Your task to perform on an android device: Clear all items from cart on ebay.com. Add logitech g pro to the cart on ebay.com Image 0: 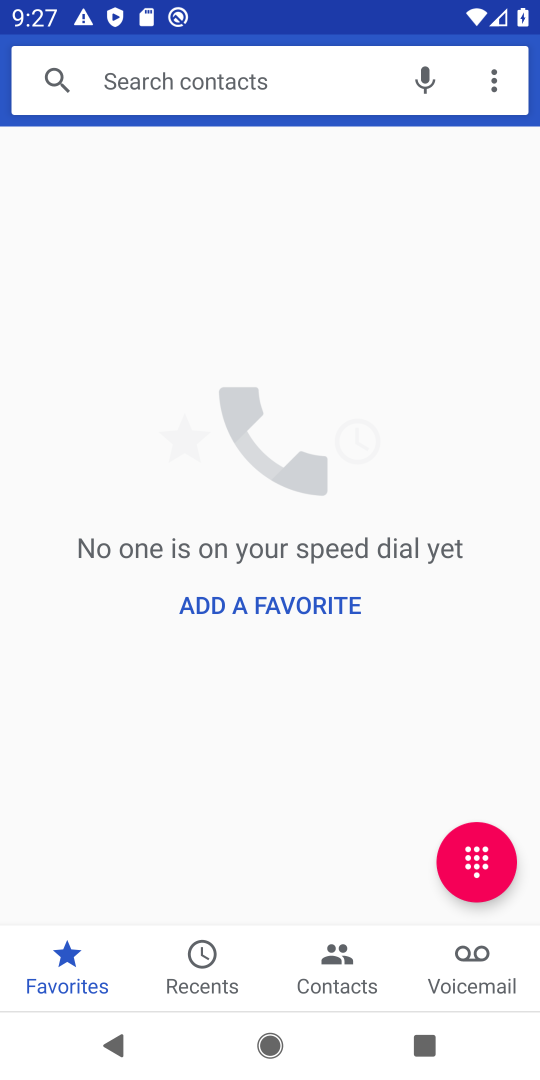
Step 0: press home button
Your task to perform on an android device: Clear all items from cart on ebay.com. Add logitech g pro to the cart on ebay.com Image 1: 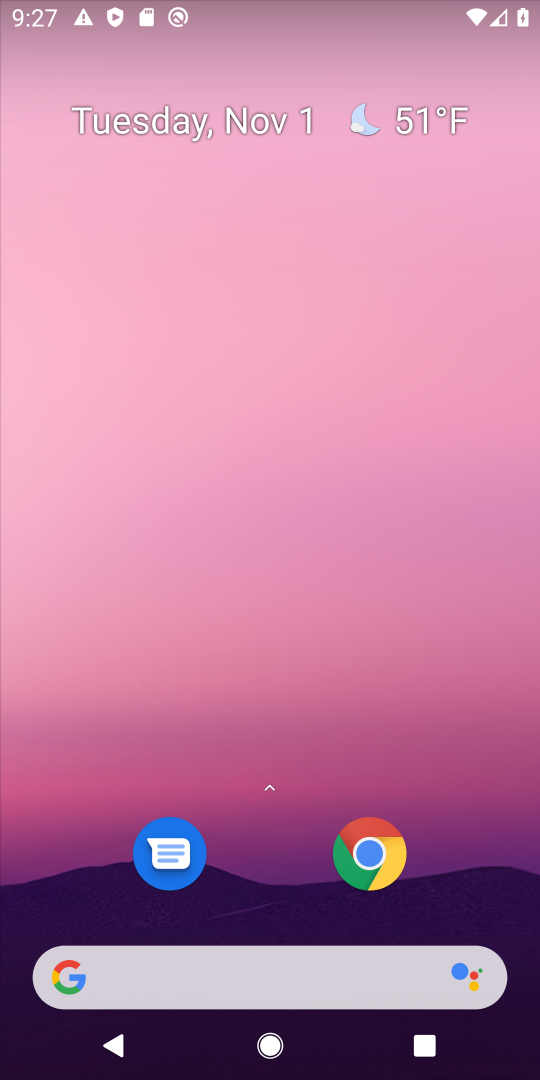
Step 1: click (124, 949)
Your task to perform on an android device: Clear all items from cart on ebay.com. Add logitech g pro to the cart on ebay.com Image 2: 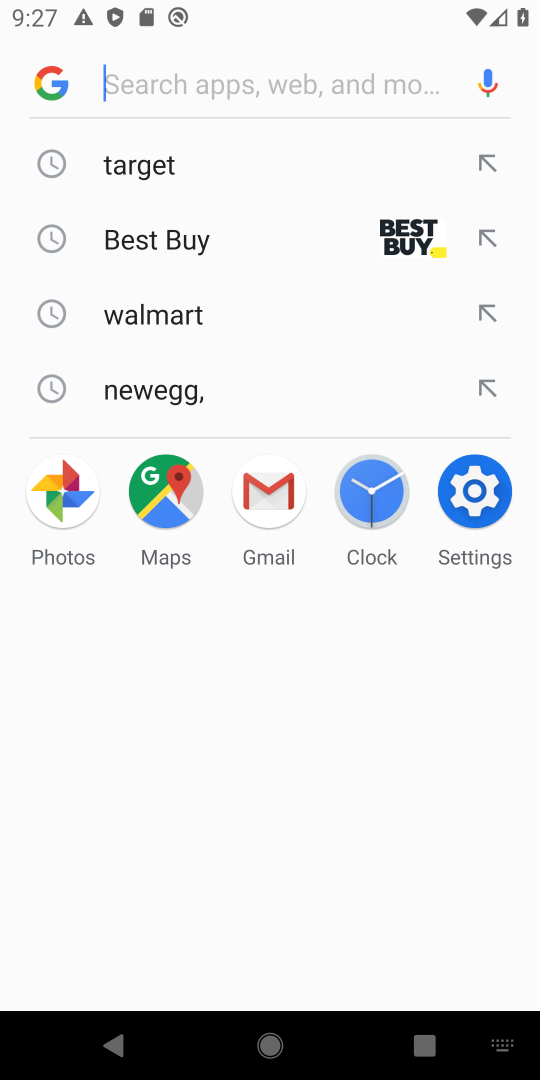
Step 2: type "ebay.com"
Your task to perform on an android device: Clear all items from cart on ebay.com. Add logitech g pro to the cart on ebay.com Image 3: 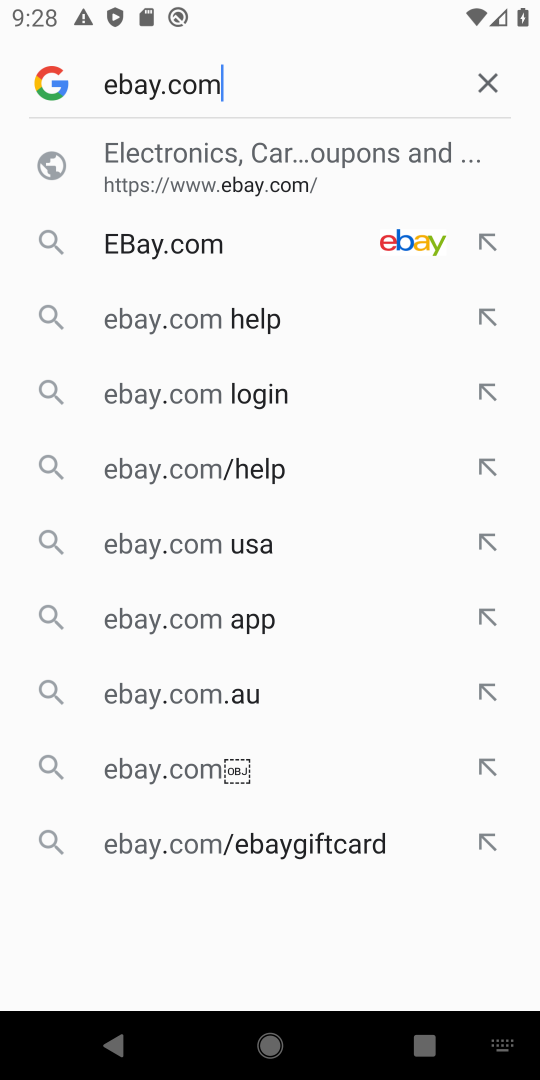
Step 3: click (201, 183)
Your task to perform on an android device: Clear all items from cart on ebay.com. Add logitech g pro to the cart on ebay.com Image 4: 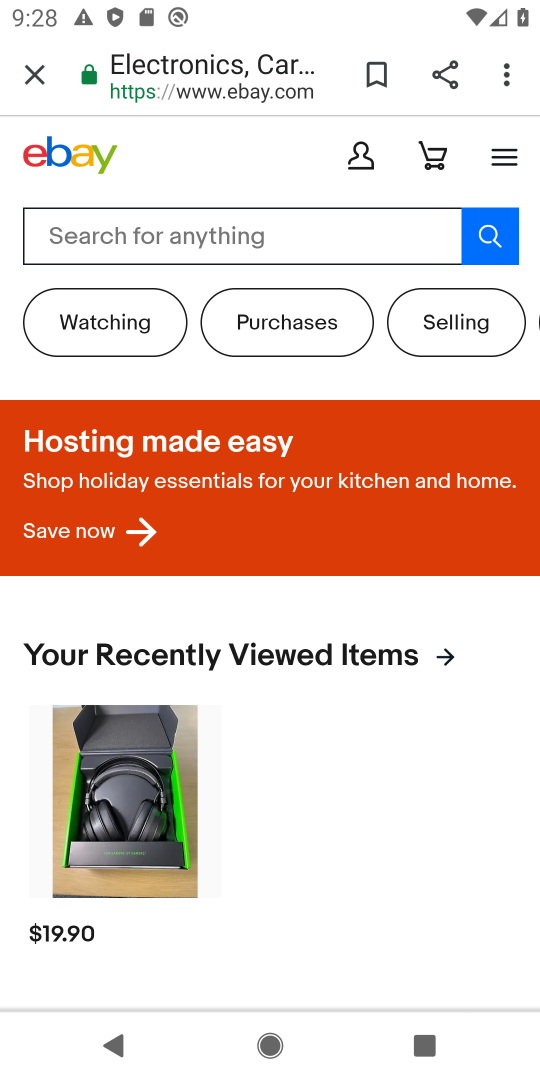
Step 4: click (134, 236)
Your task to perform on an android device: Clear all items from cart on ebay.com. Add logitech g pro to the cart on ebay.com Image 5: 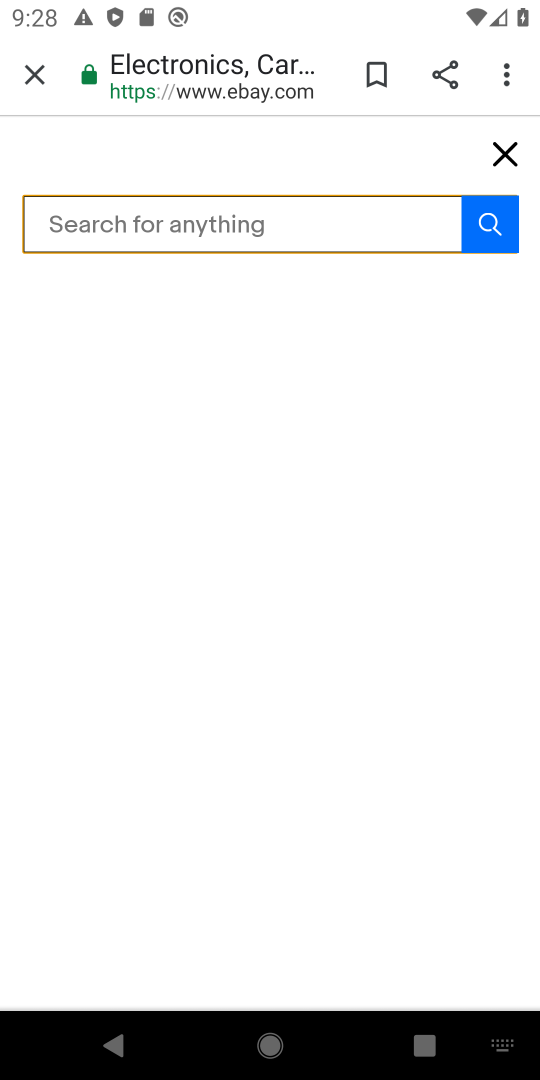
Step 5: type "logitech g pro"
Your task to perform on an android device: Clear all items from cart on ebay.com. Add logitech g pro to the cart on ebay.com Image 6: 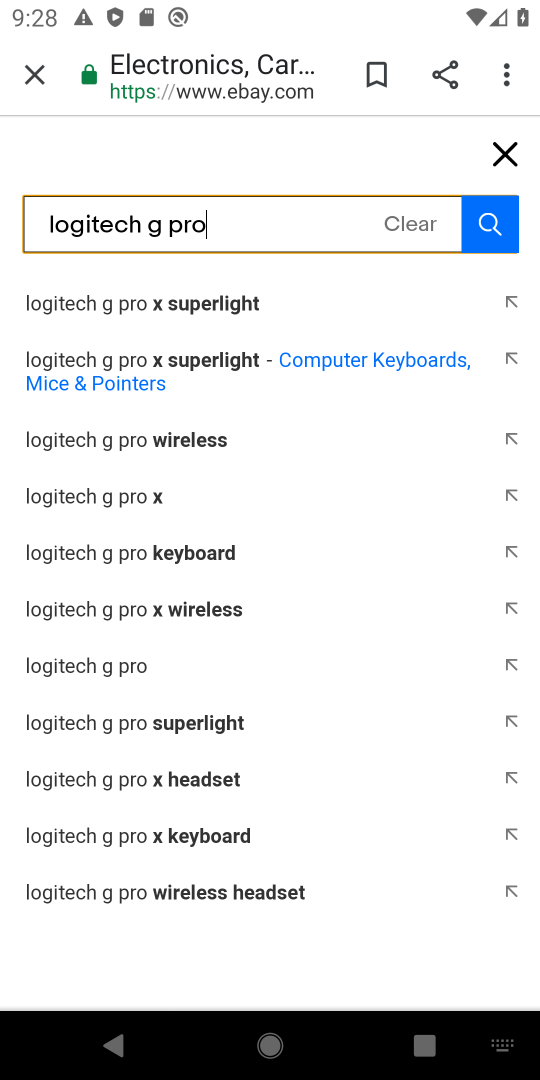
Step 6: click (202, 661)
Your task to perform on an android device: Clear all items from cart on ebay.com. Add logitech g pro to the cart on ebay.com Image 7: 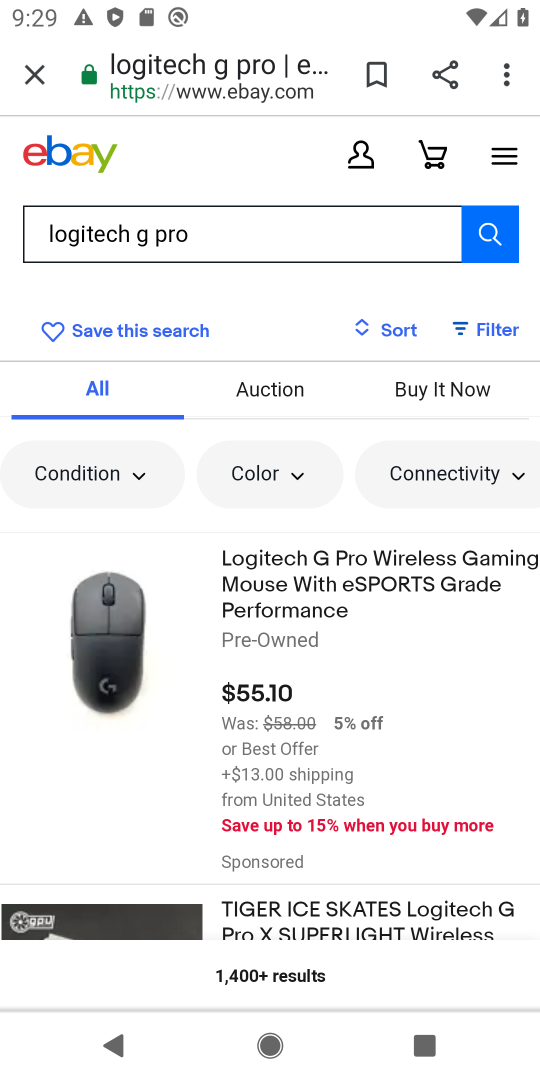
Step 7: click (344, 614)
Your task to perform on an android device: Clear all items from cart on ebay.com. Add logitech g pro to the cart on ebay.com Image 8: 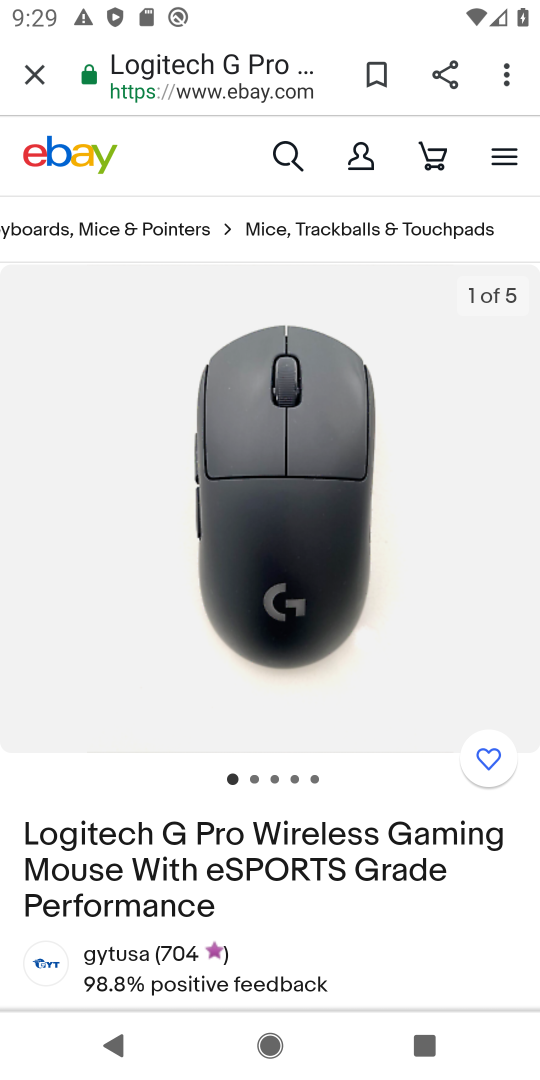
Step 8: drag from (329, 779) to (323, 290)
Your task to perform on an android device: Clear all items from cart on ebay.com. Add logitech g pro to the cart on ebay.com Image 9: 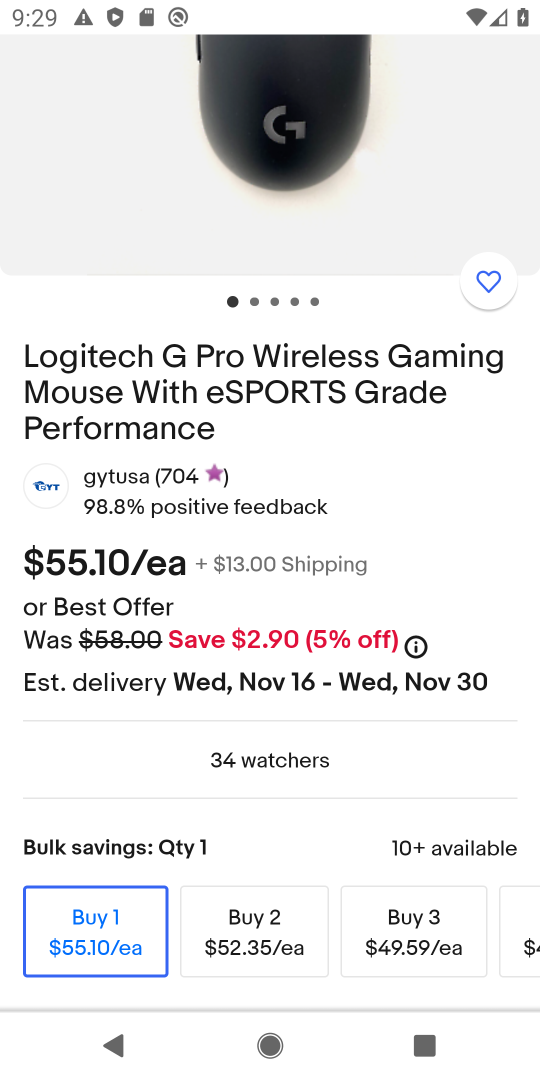
Step 9: drag from (269, 818) to (266, 299)
Your task to perform on an android device: Clear all items from cart on ebay.com. Add logitech g pro to the cart on ebay.com Image 10: 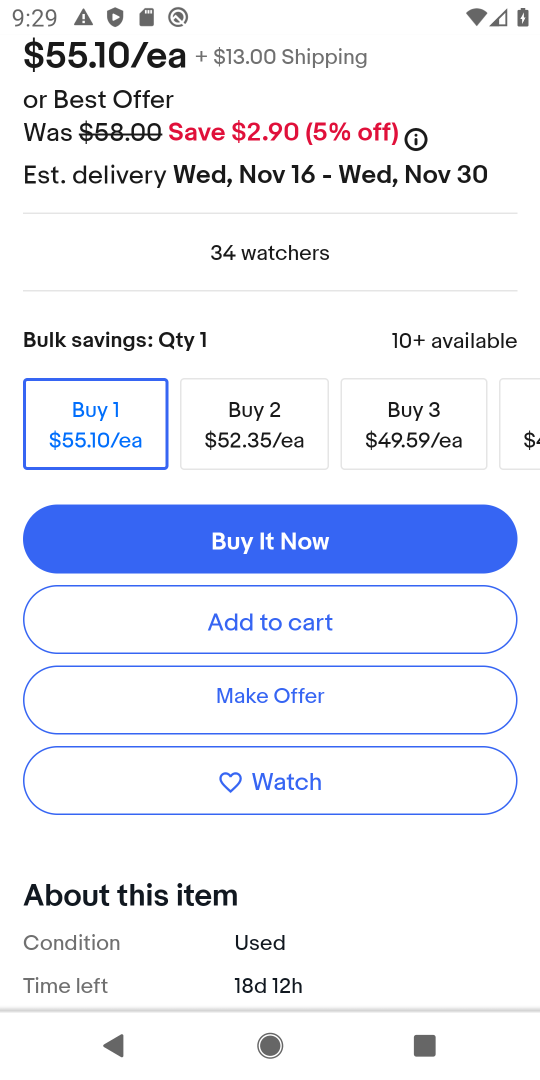
Step 10: click (302, 615)
Your task to perform on an android device: Clear all items from cart on ebay.com. Add logitech g pro to the cart on ebay.com Image 11: 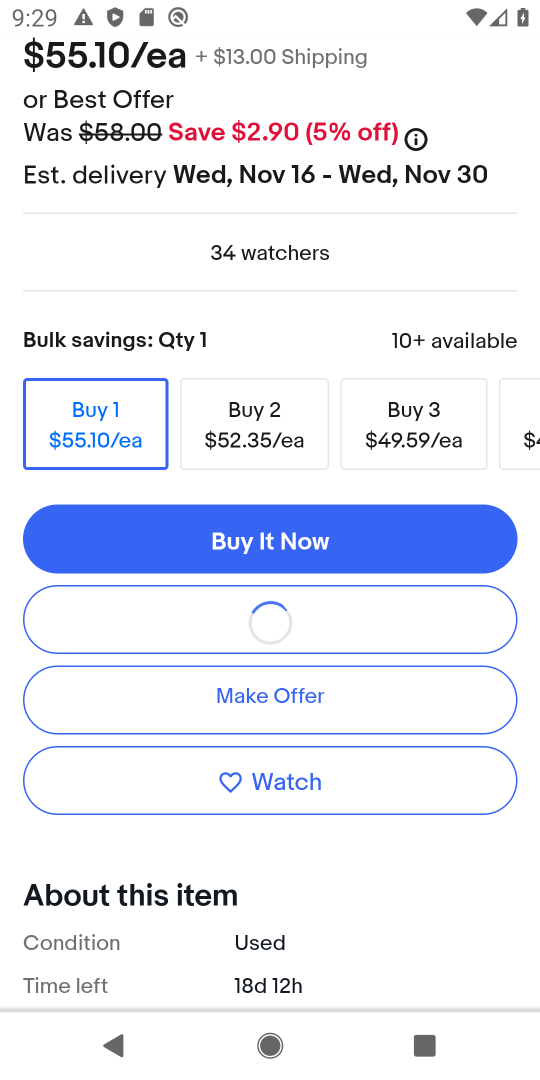
Step 11: task complete